Your task to perform on an android device: delete browsing data in the chrome app Image 0: 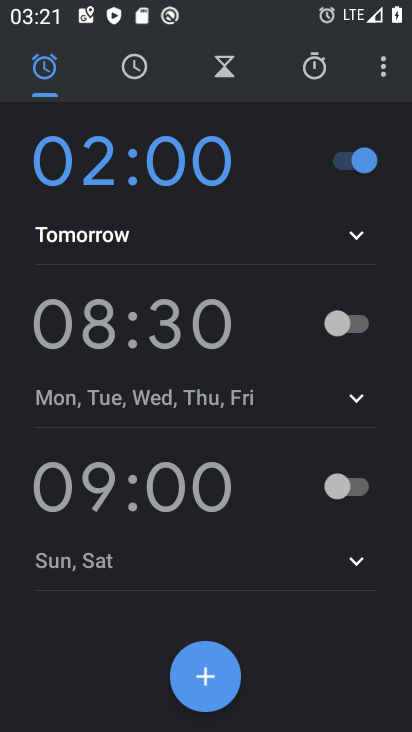
Step 0: press home button
Your task to perform on an android device: delete browsing data in the chrome app Image 1: 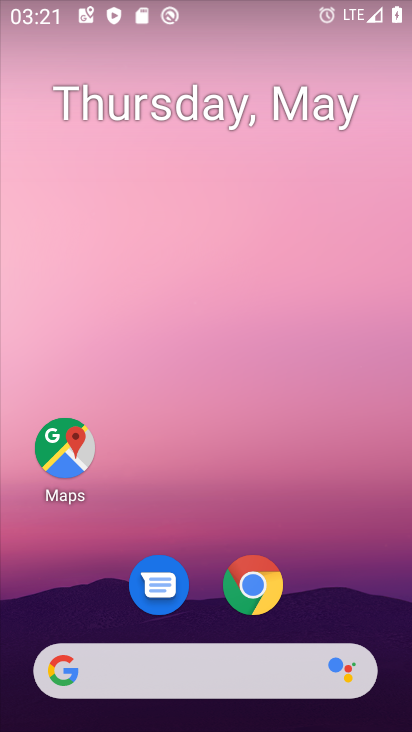
Step 1: click (253, 583)
Your task to perform on an android device: delete browsing data in the chrome app Image 2: 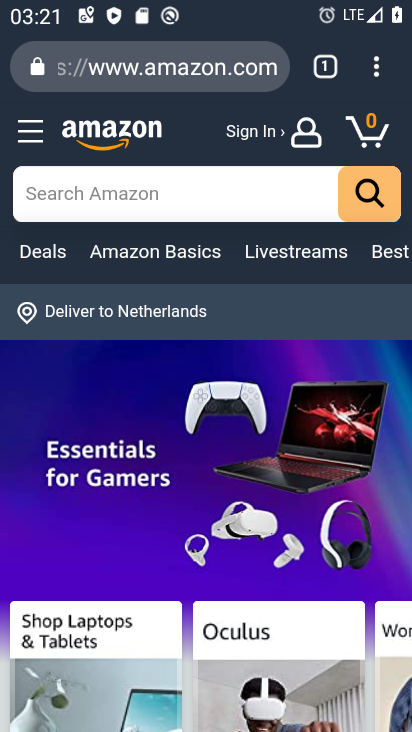
Step 2: click (375, 64)
Your task to perform on an android device: delete browsing data in the chrome app Image 3: 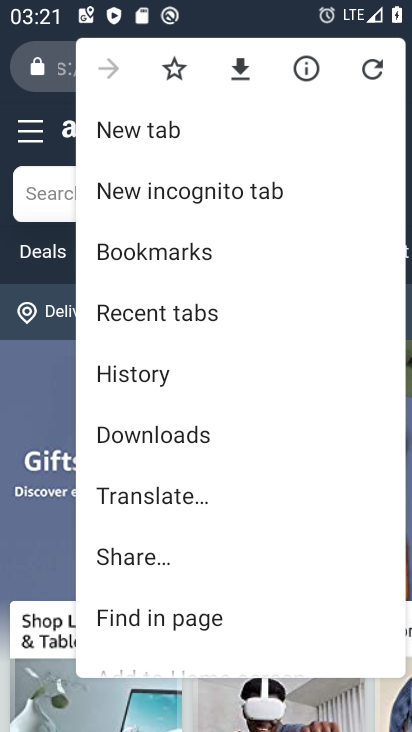
Step 3: click (141, 375)
Your task to perform on an android device: delete browsing data in the chrome app Image 4: 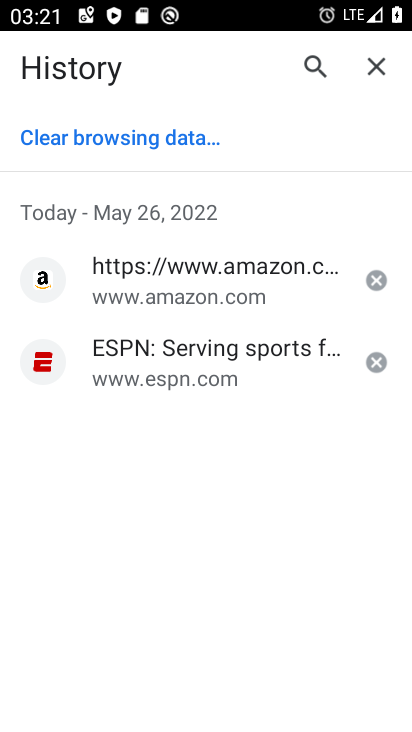
Step 4: click (135, 138)
Your task to perform on an android device: delete browsing data in the chrome app Image 5: 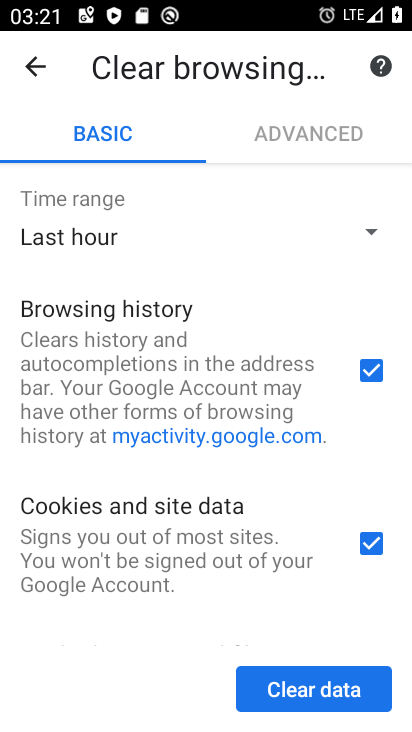
Step 5: drag from (280, 506) to (304, 262)
Your task to perform on an android device: delete browsing data in the chrome app Image 6: 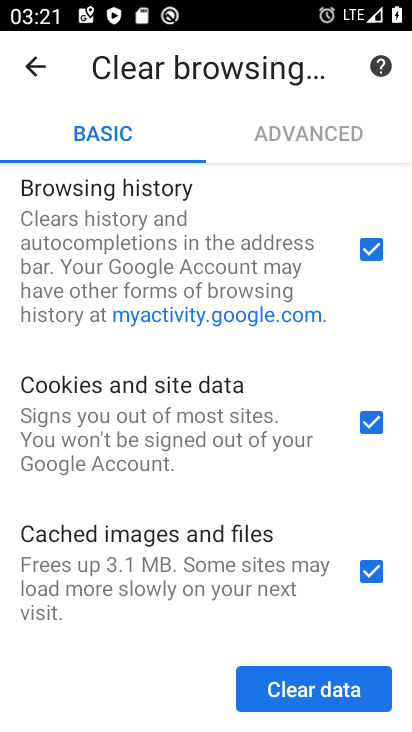
Step 6: click (322, 677)
Your task to perform on an android device: delete browsing data in the chrome app Image 7: 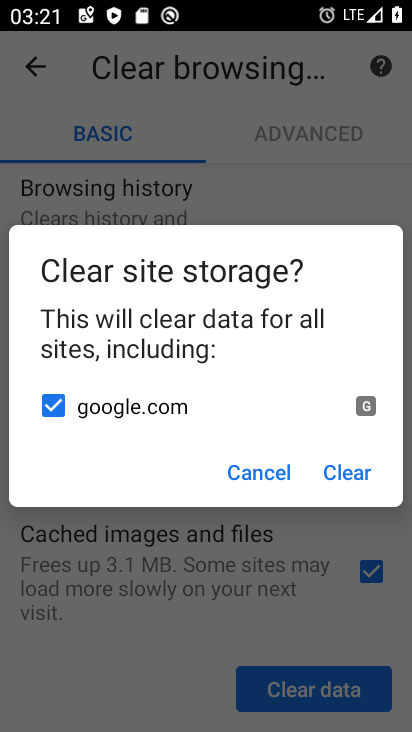
Step 7: click (358, 473)
Your task to perform on an android device: delete browsing data in the chrome app Image 8: 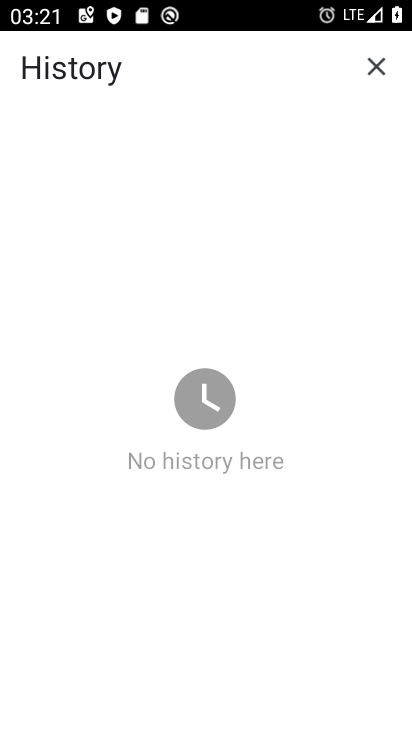
Step 8: task complete